Your task to perform on an android device: Open Google Maps Image 0: 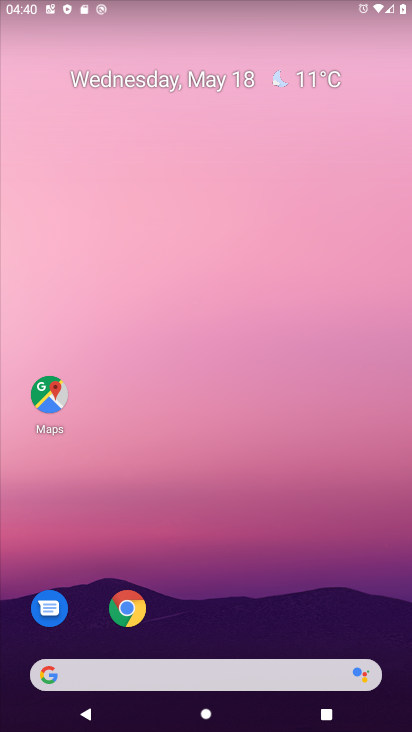
Step 0: click (37, 403)
Your task to perform on an android device: Open Google Maps Image 1: 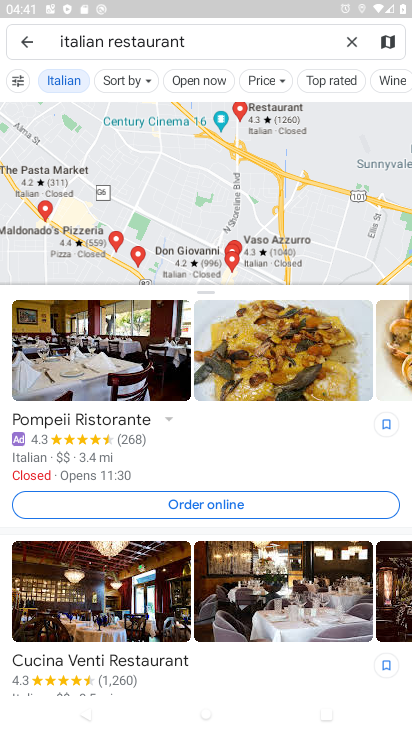
Step 1: task complete